Your task to perform on an android device: Set the phone to "Do not disturb". Image 0: 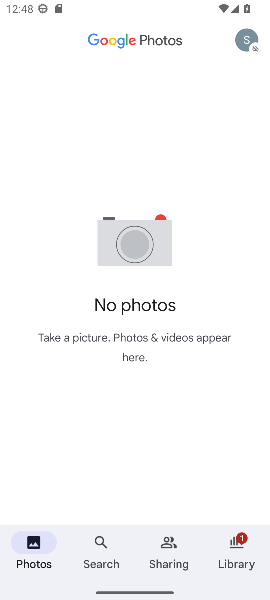
Step 0: task complete